Your task to perform on an android device: delete location history Image 0: 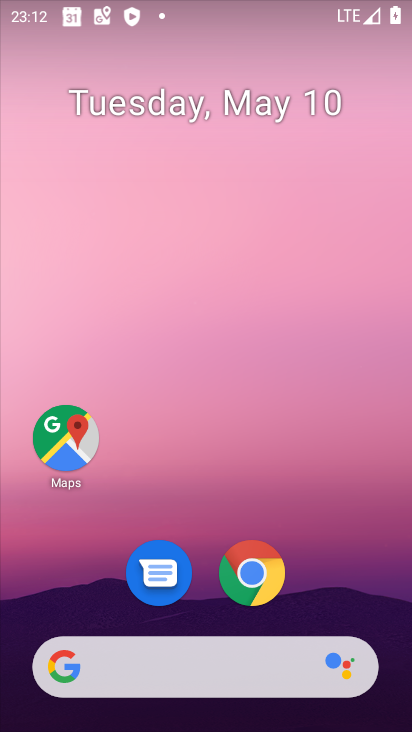
Step 0: drag from (336, 559) to (249, 193)
Your task to perform on an android device: delete location history Image 1: 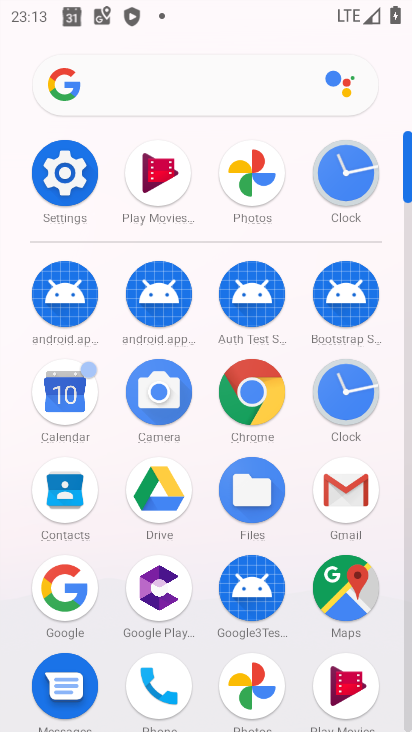
Step 1: drag from (203, 543) to (188, 232)
Your task to perform on an android device: delete location history Image 2: 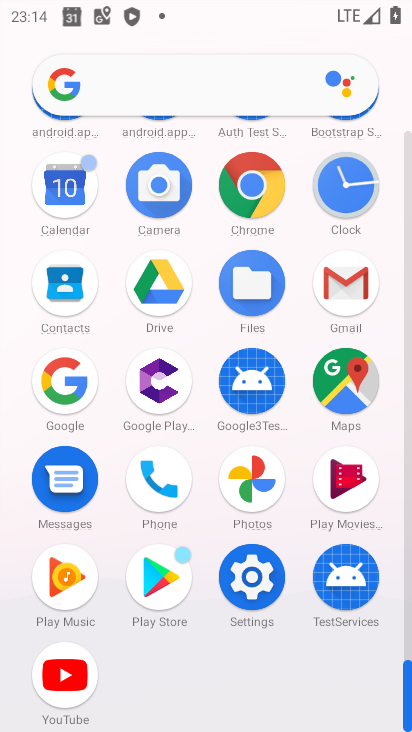
Step 2: drag from (206, 320) to (210, 676)
Your task to perform on an android device: delete location history Image 3: 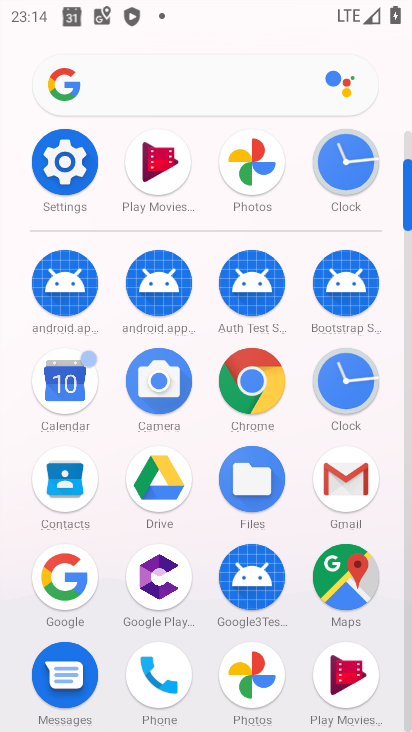
Step 3: drag from (209, 327) to (219, 700)
Your task to perform on an android device: delete location history Image 4: 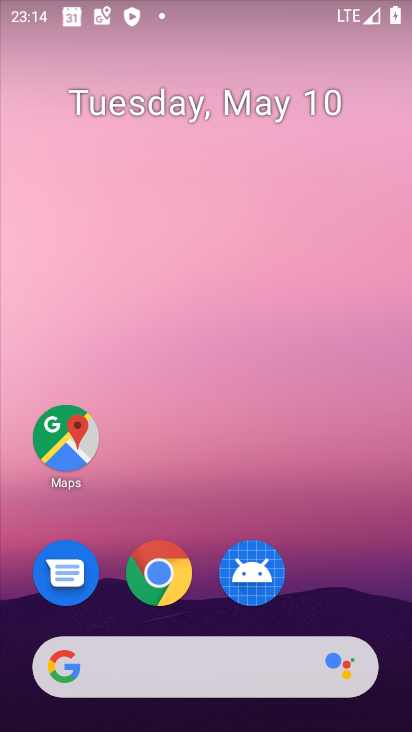
Step 4: click (65, 446)
Your task to perform on an android device: delete location history Image 5: 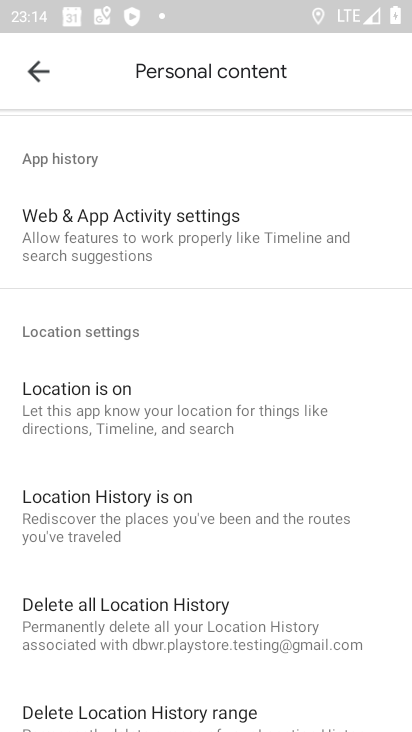
Step 5: drag from (224, 514) to (177, 265)
Your task to perform on an android device: delete location history Image 6: 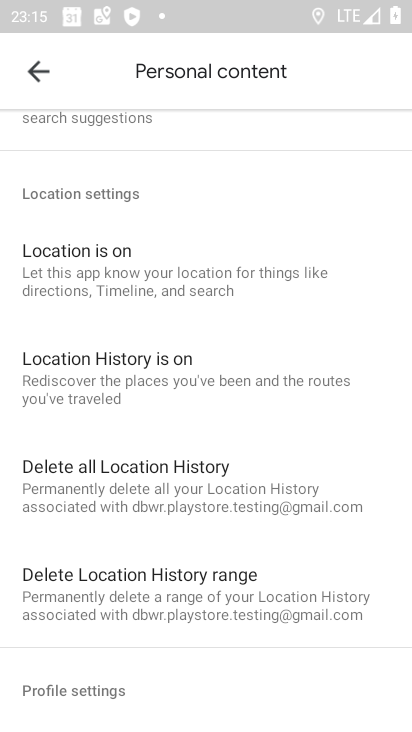
Step 6: click (137, 457)
Your task to perform on an android device: delete location history Image 7: 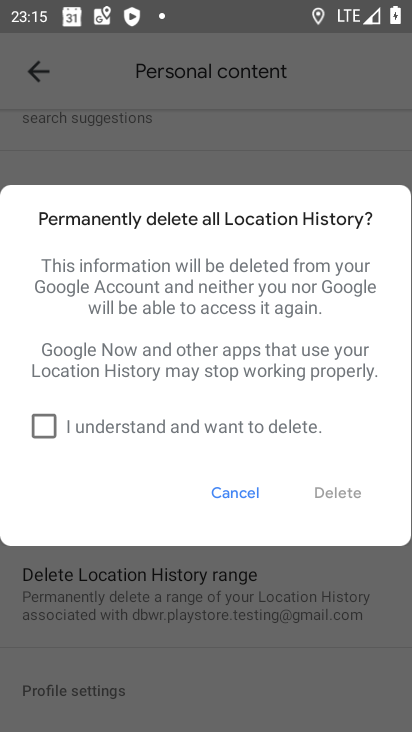
Step 7: click (40, 417)
Your task to perform on an android device: delete location history Image 8: 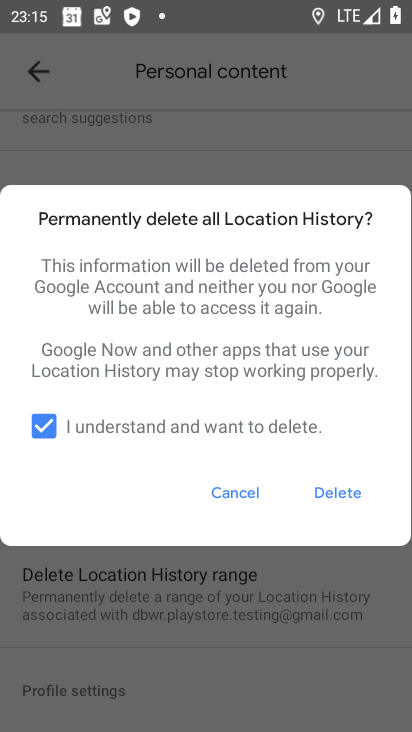
Step 8: click (330, 491)
Your task to perform on an android device: delete location history Image 9: 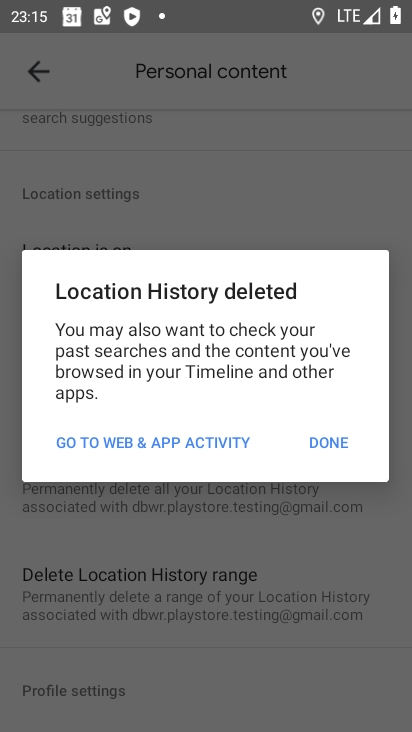
Step 9: click (329, 441)
Your task to perform on an android device: delete location history Image 10: 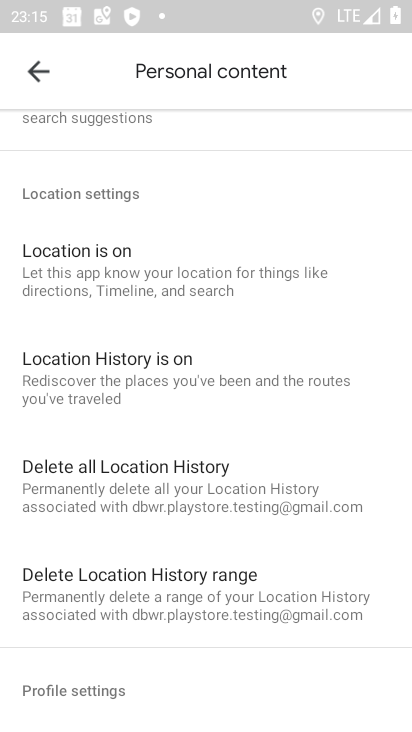
Step 10: task complete